Your task to perform on an android device: install app "HBO Max: Stream TV & Movies" Image 0: 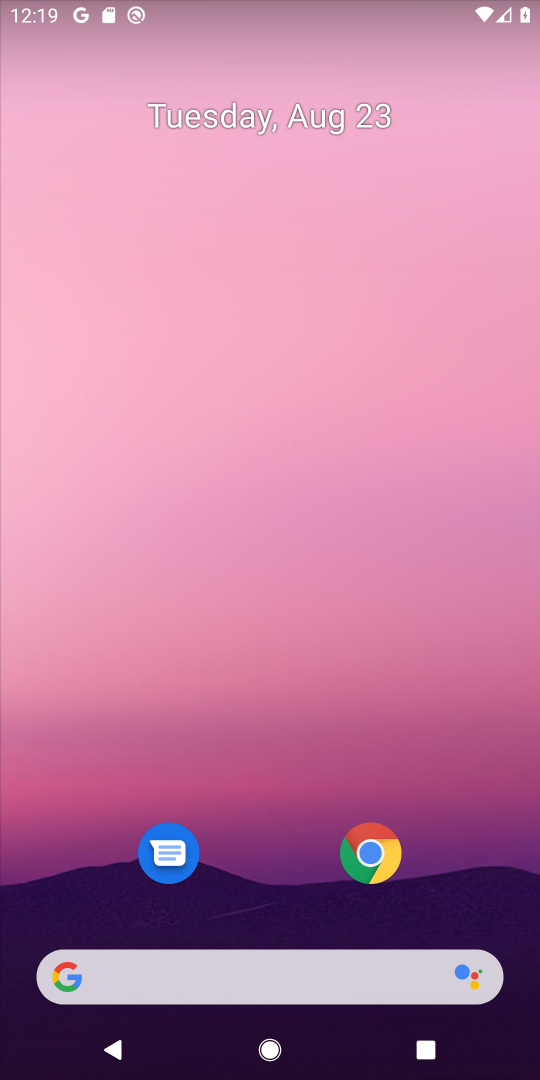
Step 0: drag from (411, 872) to (376, 178)
Your task to perform on an android device: install app "HBO Max: Stream TV & Movies" Image 1: 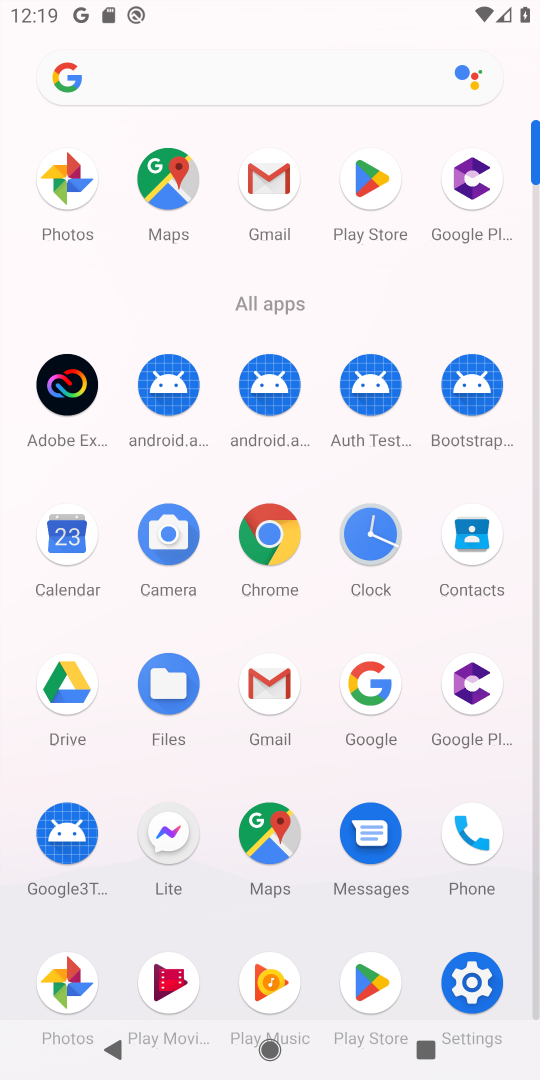
Step 1: click (368, 983)
Your task to perform on an android device: install app "HBO Max: Stream TV & Movies" Image 2: 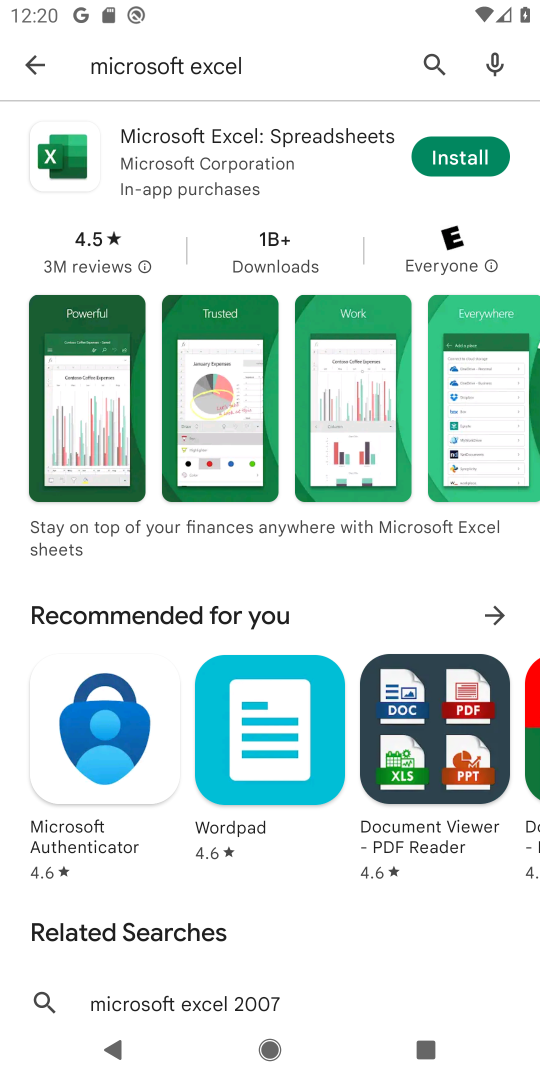
Step 2: click (430, 60)
Your task to perform on an android device: install app "HBO Max: Stream TV & Movies" Image 3: 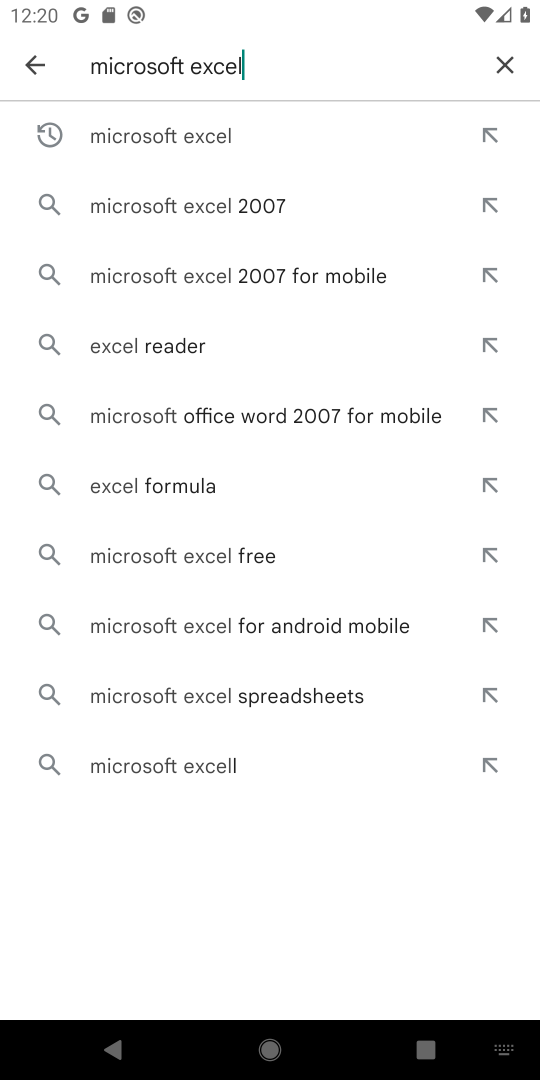
Step 3: click (506, 65)
Your task to perform on an android device: install app "HBO Max: Stream TV & Movies" Image 4: 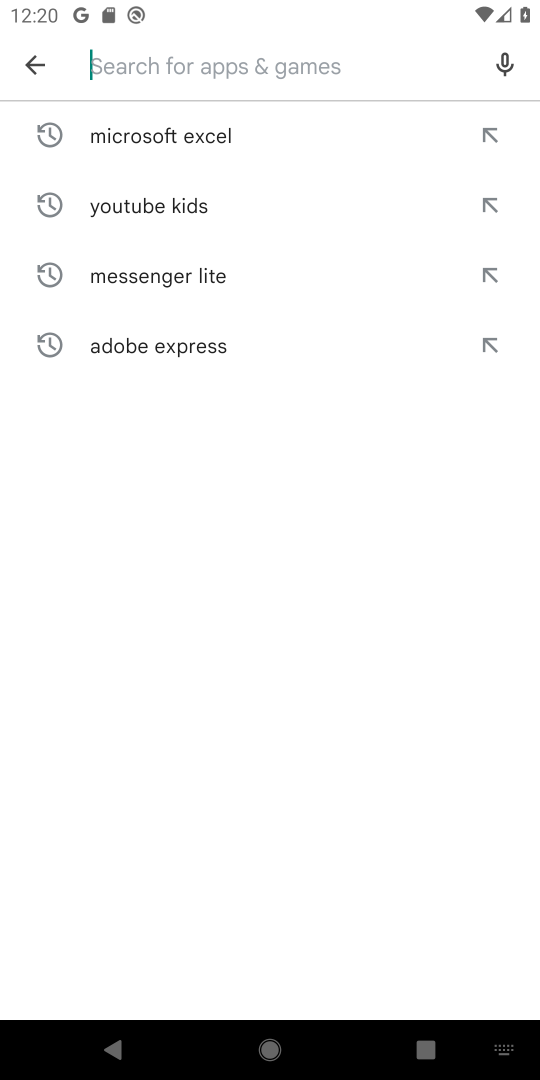
Step 4: type "HBO Max: Stream TV & Movies"
Your task to perform on an android device: install app "HBO Max: Stream TV & Movies" Image 5: 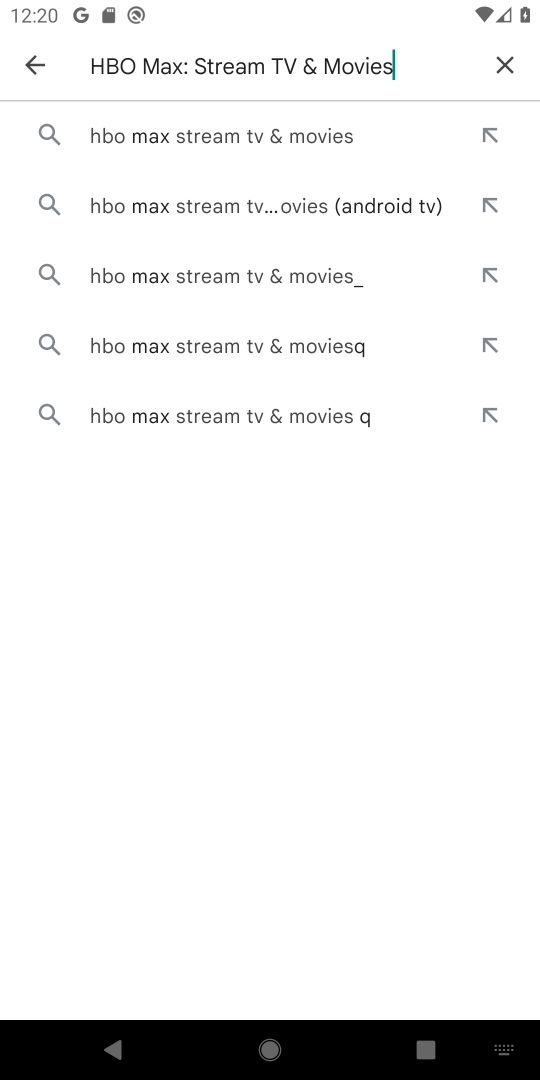
Step 5: click (173, 134)
Your task to perform on an android device: install app "HBO Max: Stream TV & Movies" Image 6: 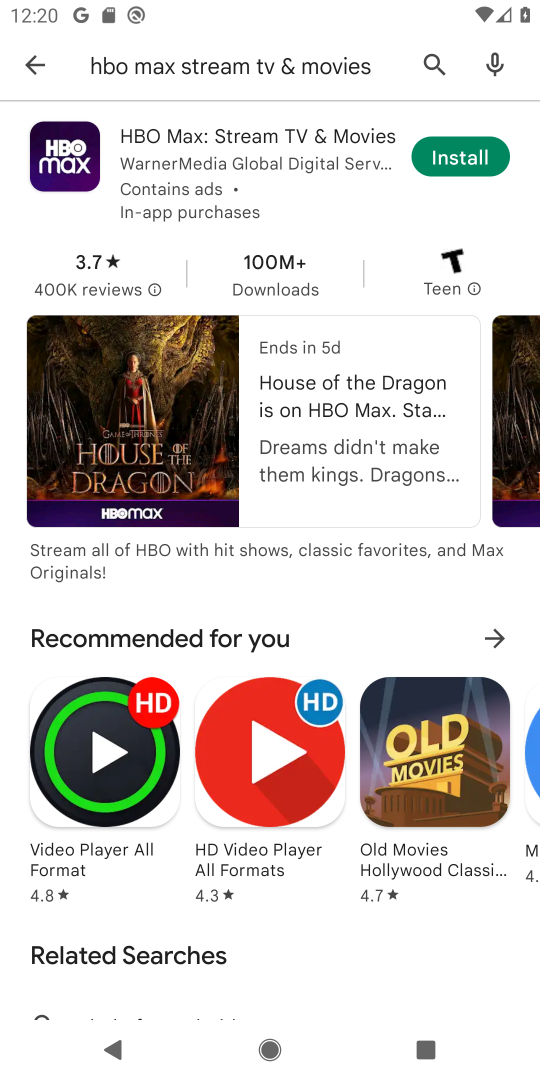
Step 6: click (458, 154)
Your task to perform on an android device: install app "HBO Max: Stream TV & Movies" Image 7: 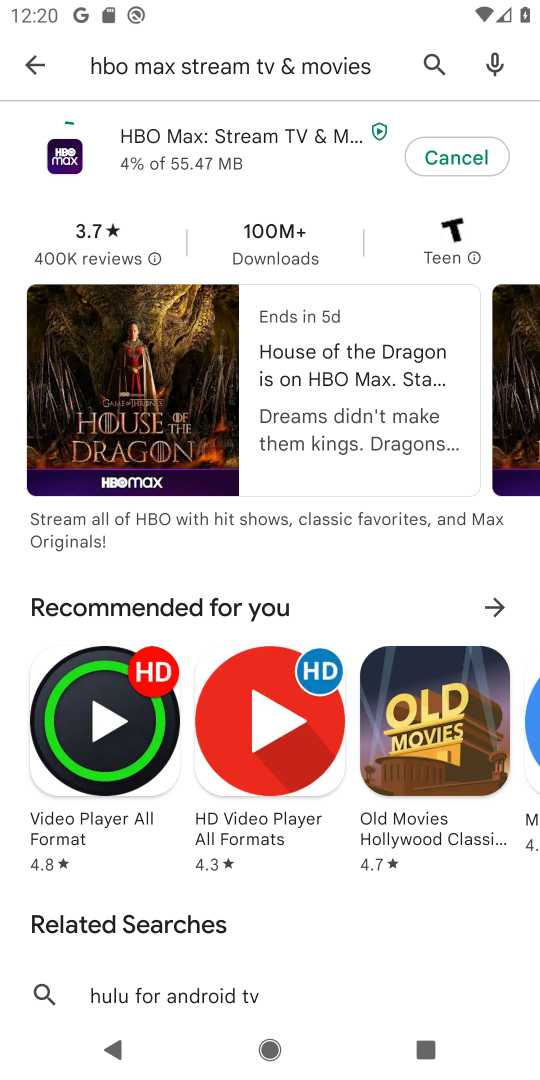
Step 7: click (143, 138)
Your task to perform on an android device: install app "HBO Max: Stream TV & Movies" Image 8: 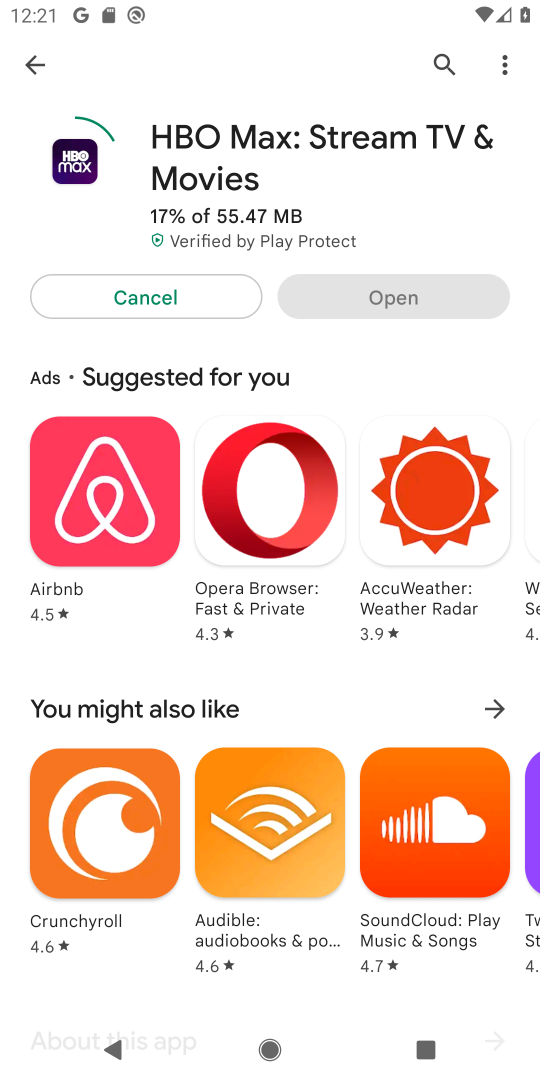
Step 8: task complete